Your task to perform on an android device: Open calendar and show me the first week of next month Image 0: 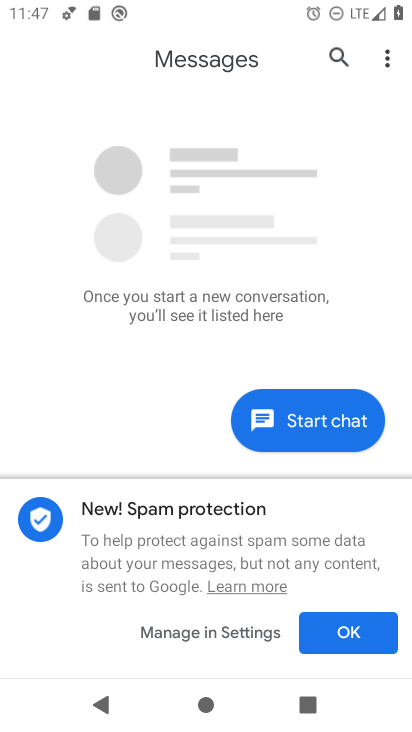
Step 0: press home button
Your task to perform on an android device: Open calendar and show me the first week of next month Image 1: 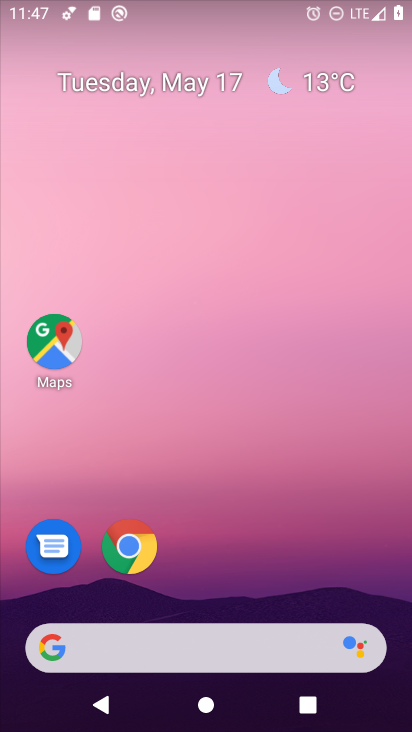
Step 1: drag from (286, 578) to (222, 0)
Your task to perform on an android device: Open calendar and show me the first week of next month Image 2: 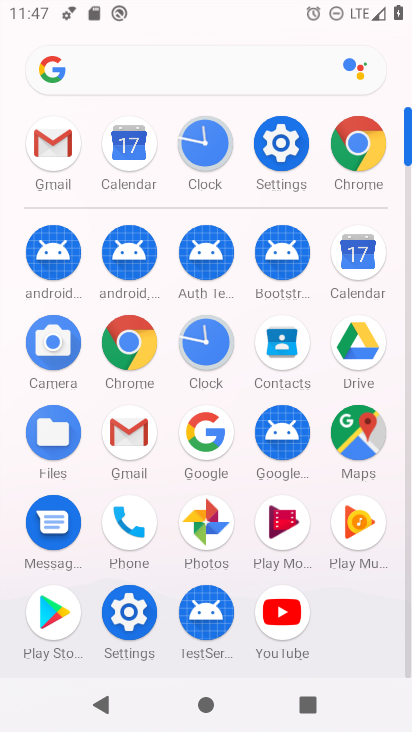
Step 2: click (123, 156)
Your task to perform on an android device: Open calendar and show me the first week of next month Image 3: 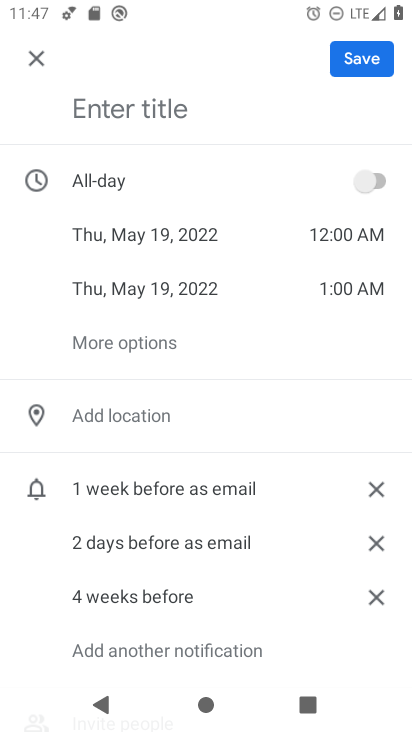
Step 3: click (30, 59)
Your task to perform on an android device: Open calendar and show me the first week of next month Image 4: 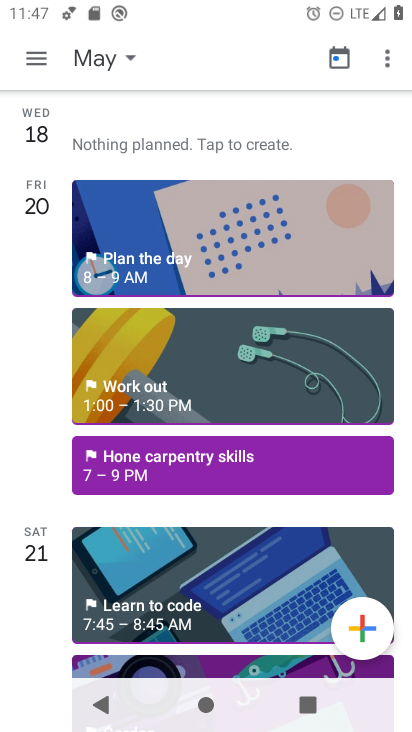
Step 4: click (125, 64)
Your task to perform on an android device: Open calendar and show me the first week of next month Image 5: 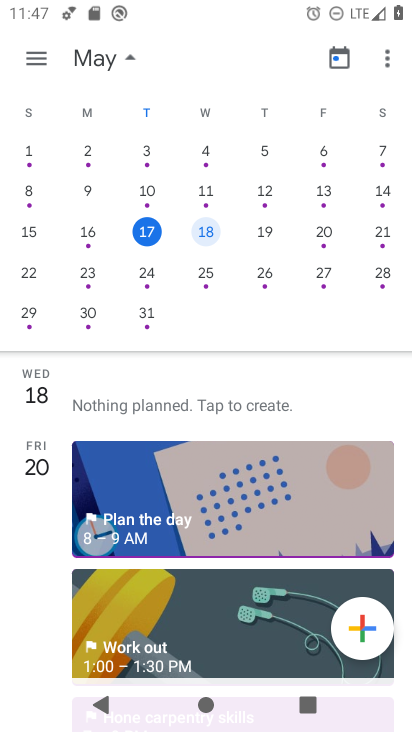
Step 5: drag from (315, 232) to (2, 475)
Your task to perform on an android device: Open calendar and show me the first week of next month Image 6: 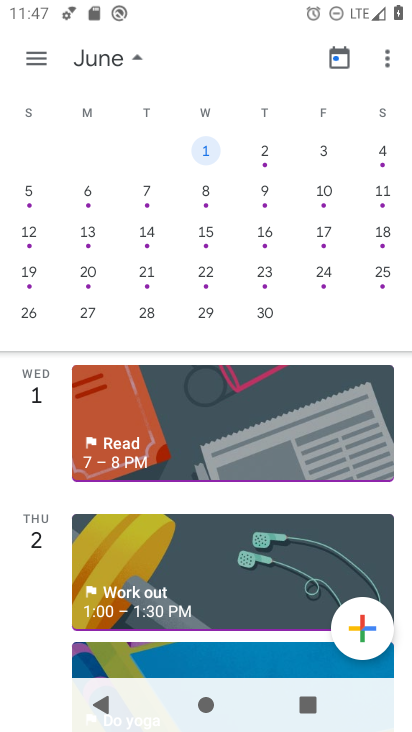
Step 6: click (24, 61)
Your task to perform on an android device: Open calendar and show me the first week of next month Image 7: 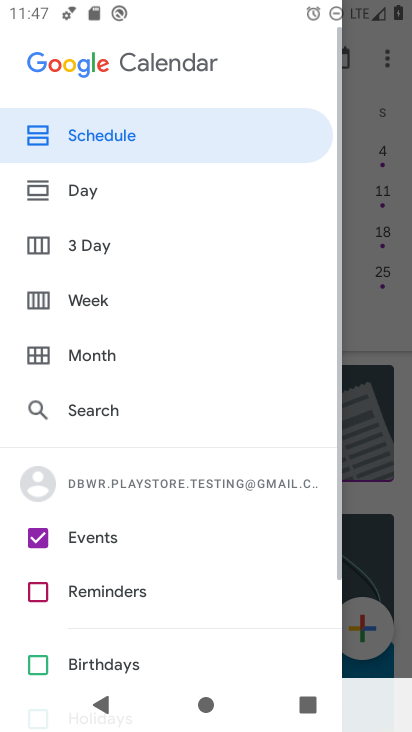
Step 7: click (89, 307)
Your task to perform on an android device: Open calendar and show me the first week of next month Image 8: 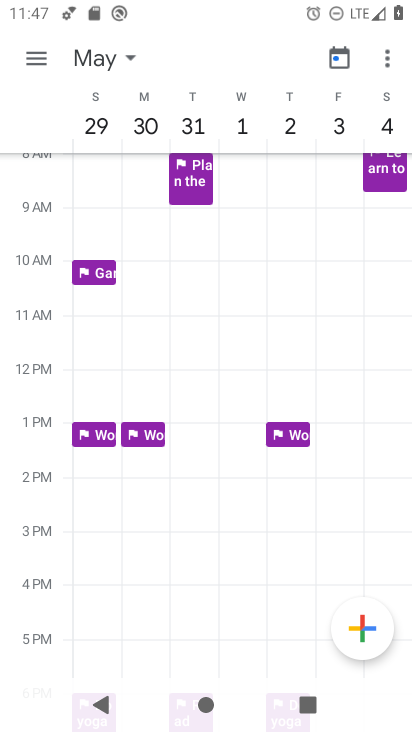
Step 8: task complete